Your task to perform on an android device: Open Google Maps Image 0: 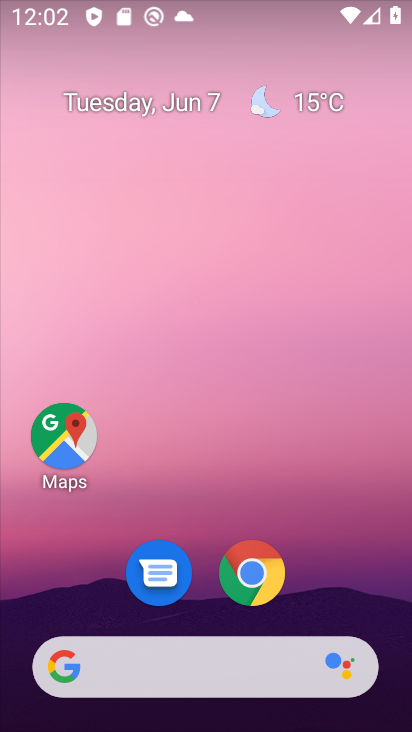
Step 0: press home button
Your task to perform on an android device: Open Google Maps Image 1: 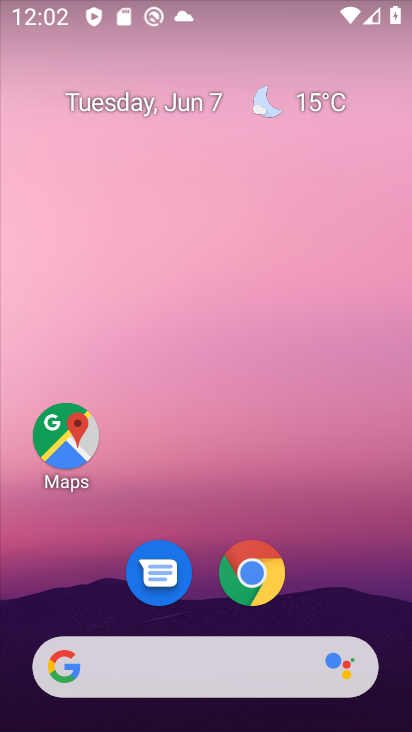
Step 1: click (61, 439)
Your task to perform on an android device: Open Google Maps Image 2: 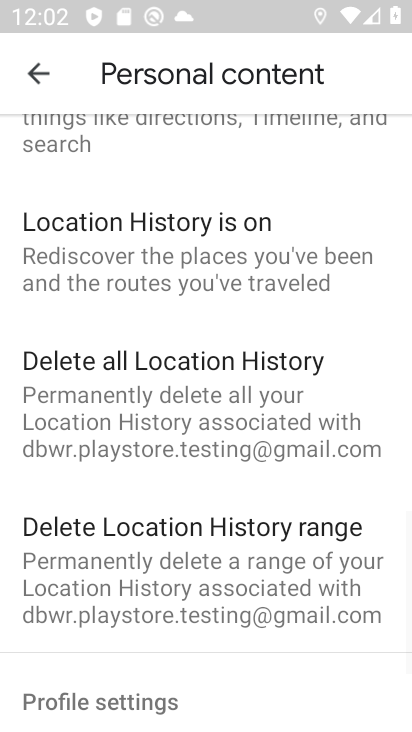
Step 2: click (29, 72)
Your task to perform on an android device: Open Google Maps Image 3: 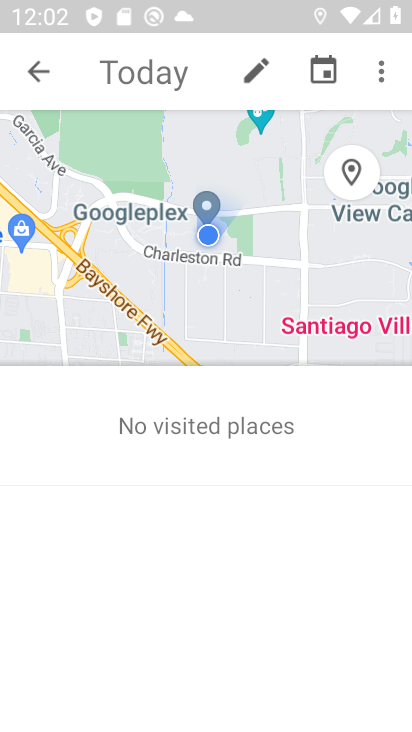
Step 3: click (39, 73)
Your task to perform on an android device: Open Google Maps Image 4: 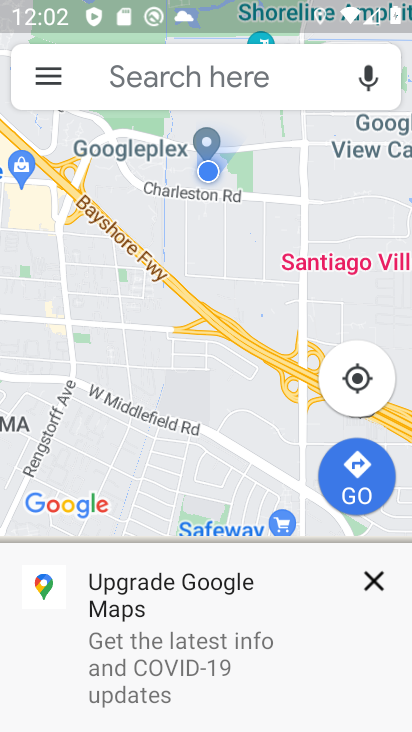
Step 4: task complete